Your task to perform on an android device: turn off data saver in the chrome app Image 0: 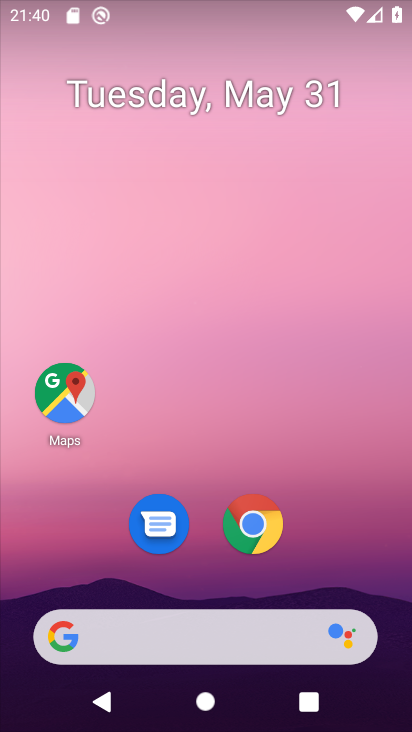
Step 0: click (259, 520)
Your task to perform on an android device: turn off data saver in the chrome app Image 1: 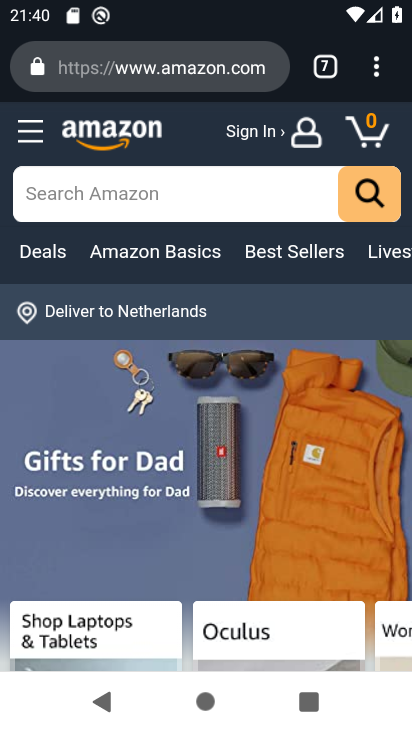
Step 1: click (376, 75)
Your task to perform on an android device: turn off data saver in the chrome app Image 2: 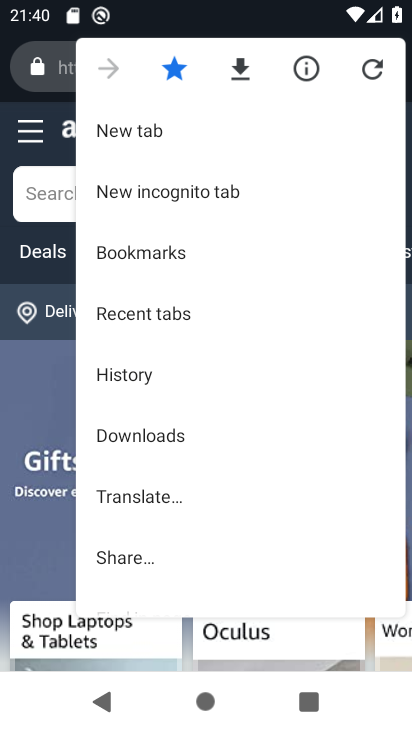
Step 2: drag from (264, 500) to (278, 166)
Your task to perform on an android device: turn off data saver in the chrome app Image 3: 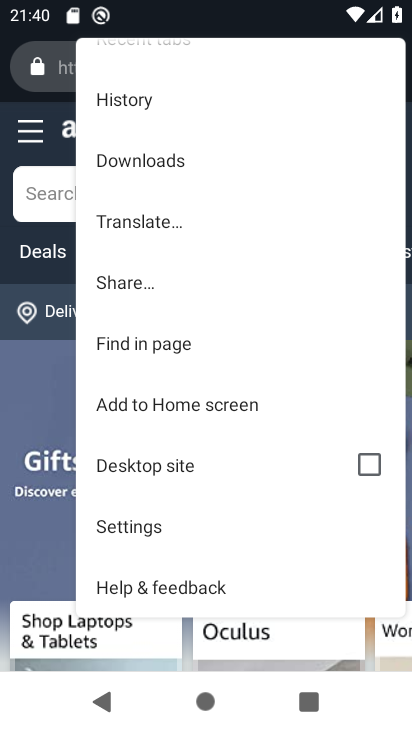
Step 3: click (192, 529)
Your task to perform on an android device: turn off data saver in the chrome app Image 4: 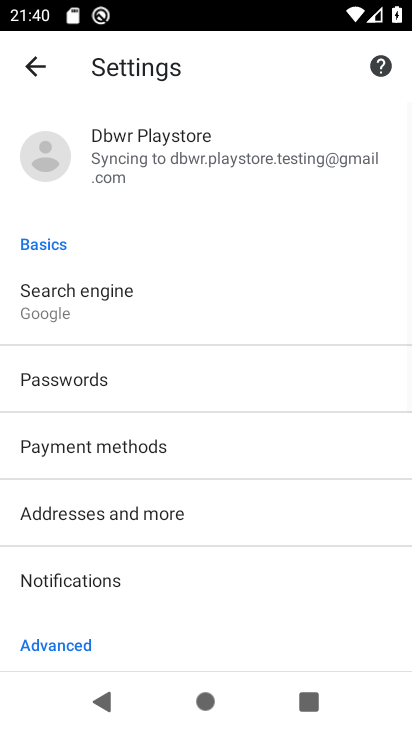
Step 4: drag from (232, 521) to (216, 160)
Your task to perform on an android device: turn off data saver in the chrome app Image 5: 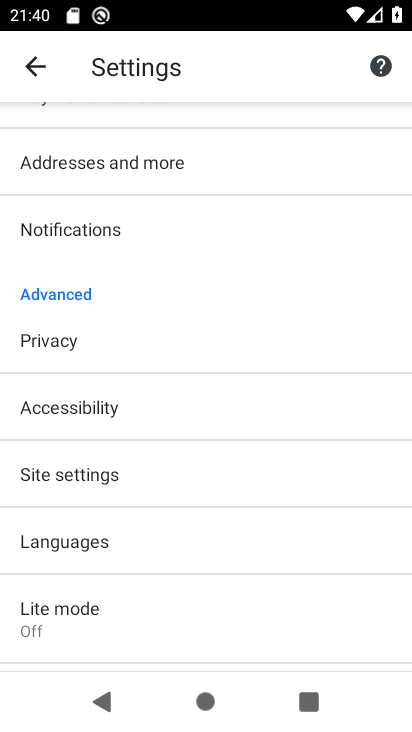
Step 5: click (170, 628)
Your task to perform on an android device: turn off data saver in the chrome app Image 6: 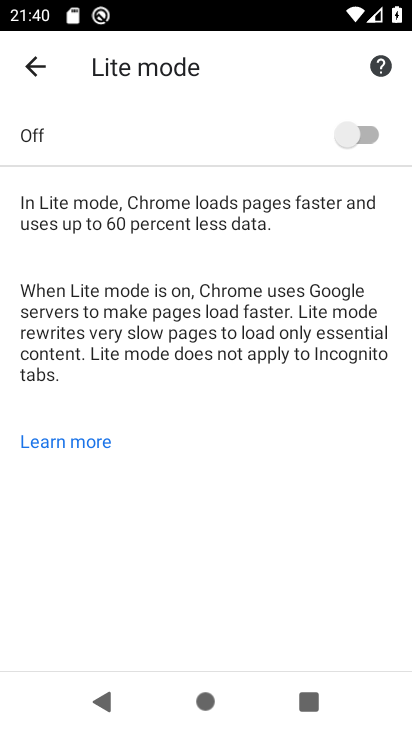
Step 6: task complete